Your task to perform on an android device: find snoozed emails in the gmail app Image 0: 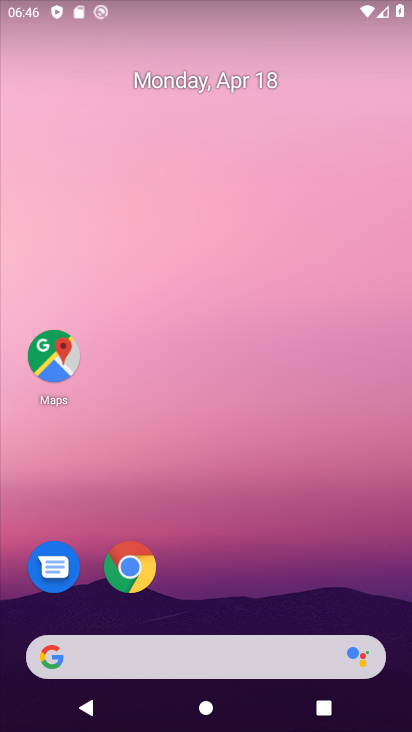
Step 0: drag from (238, 90) to (236, 33)
Your task to perform on an android device: find snoozed emails in the gmail app Image 1: 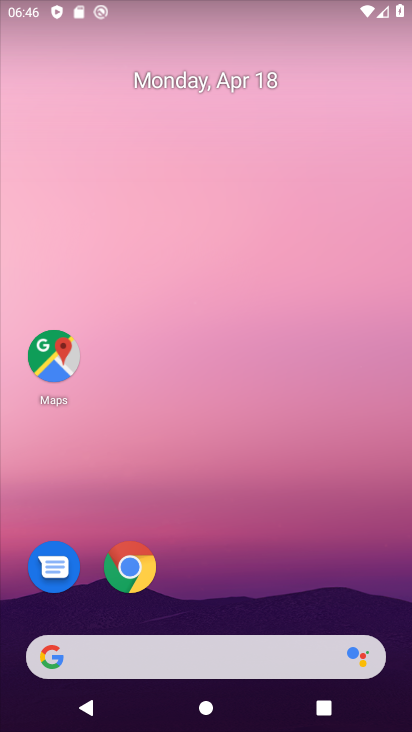
Step 1: drag from (230, 577) to (235, 154)
Your task to perform on an android device: find snoozed emails in the gmail app Image 2: 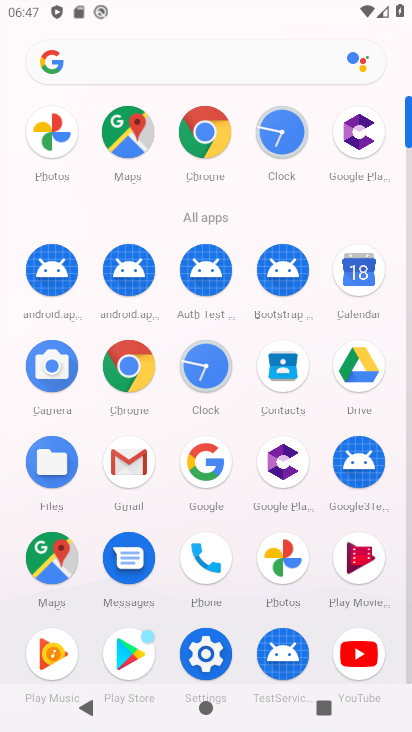
Step 2: click (117, 463)
Your task to perform on an android device: find snoozed emails in the gmail app Image 3: 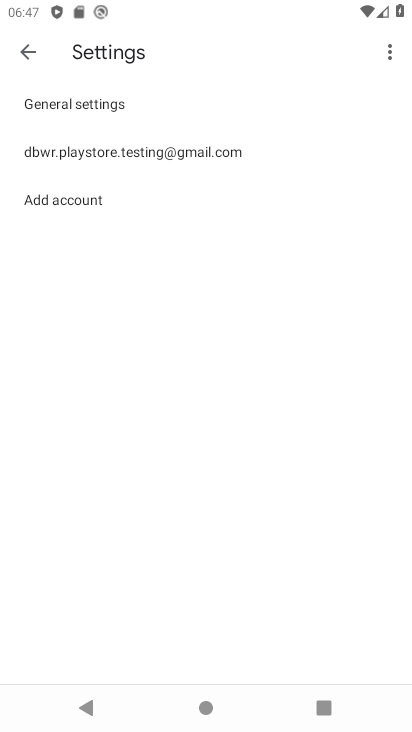
Step 3: click (13, 46)
Your task to perform on an android device: find snoozed emails in the gmail app Image 4: 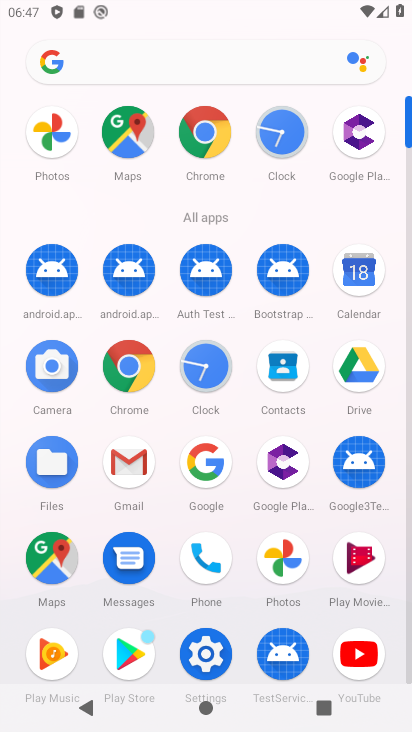
Step 4: click (13, 46)
Your task to perform on an android device: find snoozed emails in the gmail app Image 5: 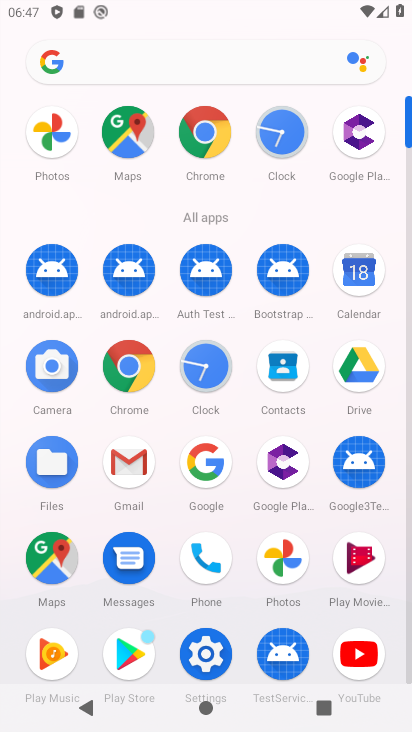
Step 5: click (137, 421)
Your task to perform on an android device: find snoozed emails in the gmail app Image 6: 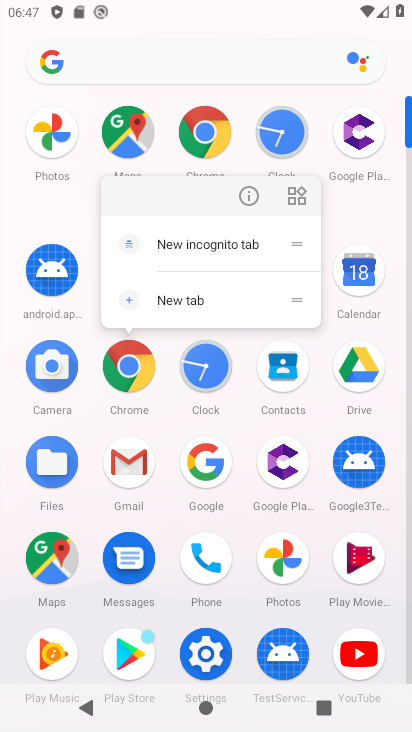
Step 6: click (140, 453)
Your task to perform on an android device: find snoozed emails in the gmail app Image 7: 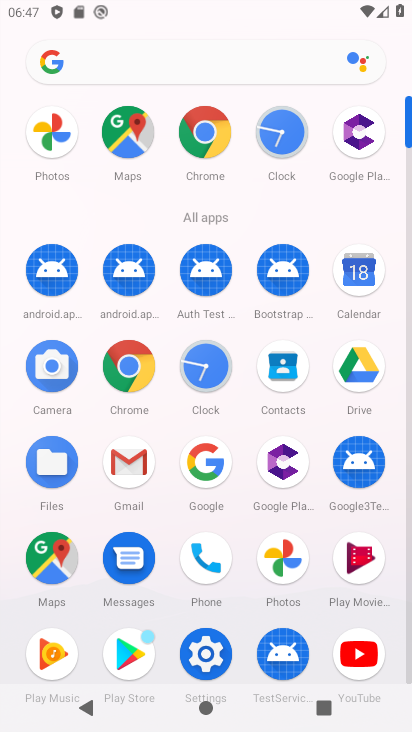
Step 7: click (122, 472)
Your task to perform on an android device: find snoozed emails in the gmail app Image 8: 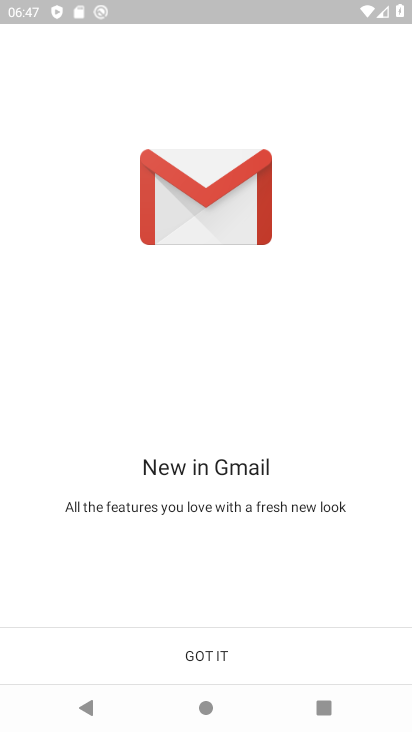
Step 8: click (357, 661)
Your task to perform on an android device: find snoozed emails in the gmail app Image 9: 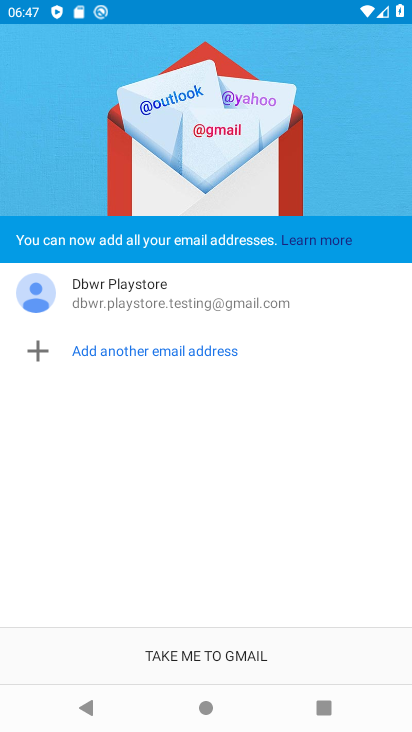
Step 9: click (357, 661)
Your task to perform on an android device: find snoozed emails in the gmail app Image 10: 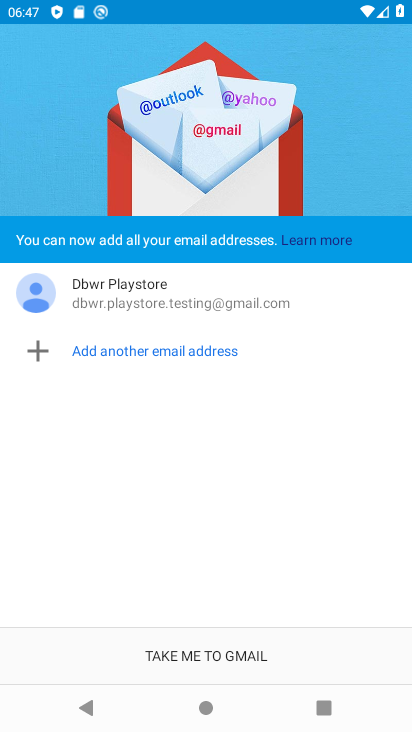
Step 10: click (357, 661)
Your task to perform on an android device: find snoozed emails in the gmail app Image 11: 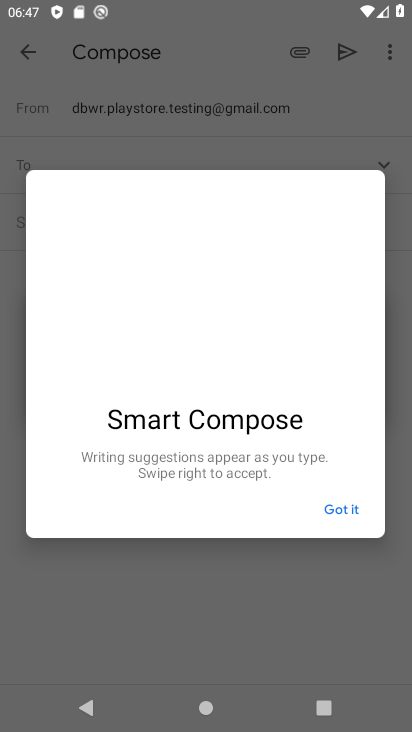
Step 11: task complete